Your task to perform on an android device: find photos in the google photos app Image 0: 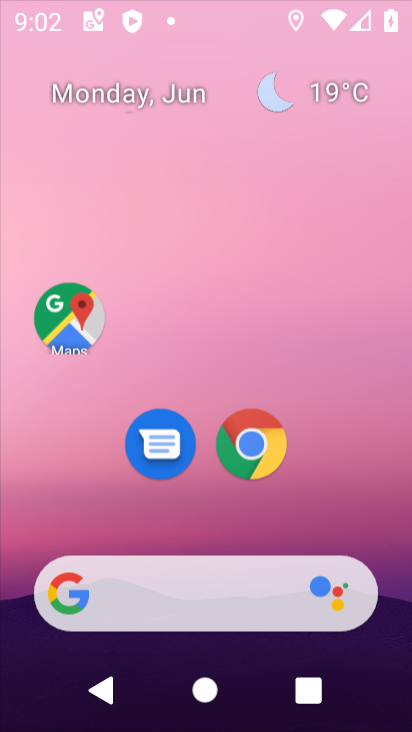
Step 0: press home button
Your task to perform on an android device: find photos in the google photos app Image 1: 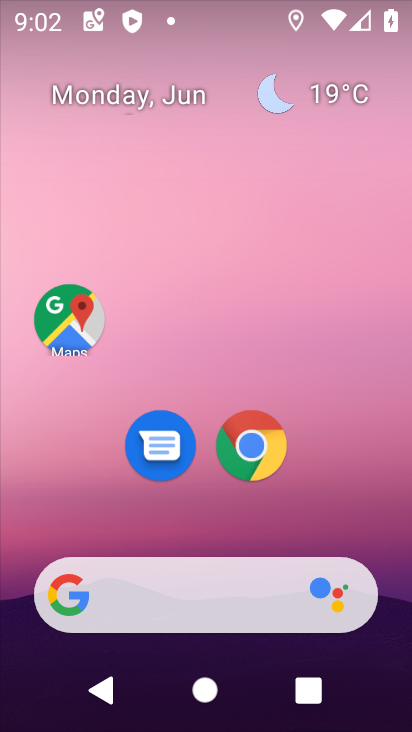
Step 1: drag from (209, 522) to (223, 95)
Your task to perform on an android device: find photos in the google photos app Image 2: 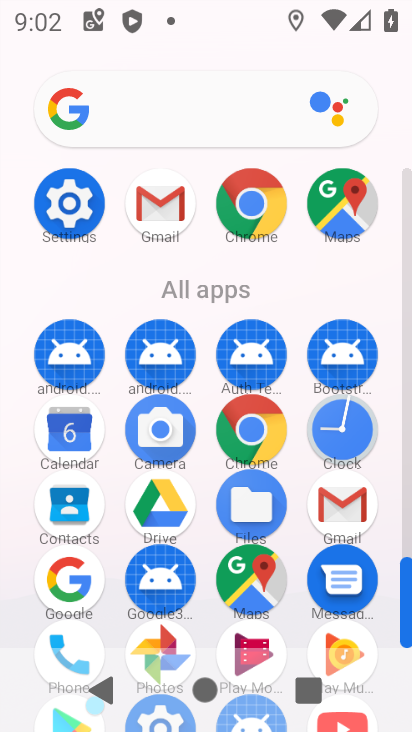
Step 2: click (163, 637)
Your task to perform on an android device: find photos in the google photos app Image 3: 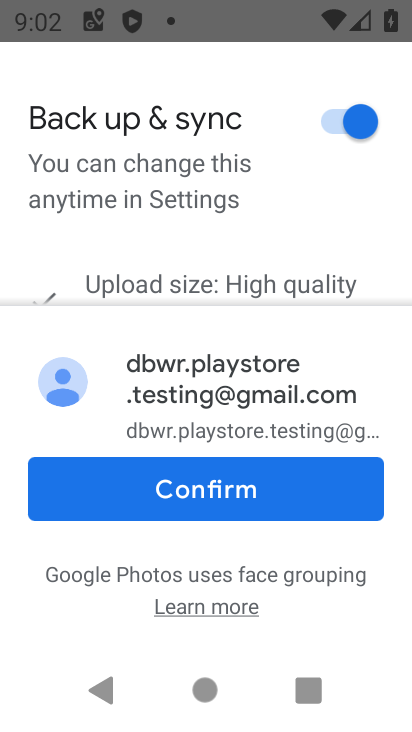
Step 3: click (208, 493)
Your task to perform on an android device: find photos in the google photos app Image 4: 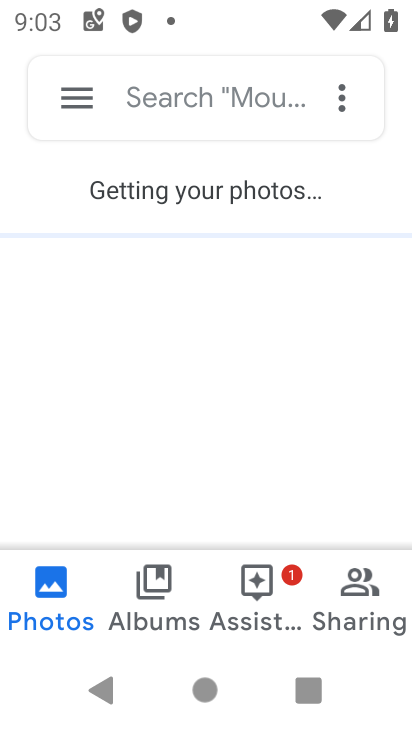
Step 4: task complete